Your task to perform on an android device: Show me the alarms in the clock app Image 0: 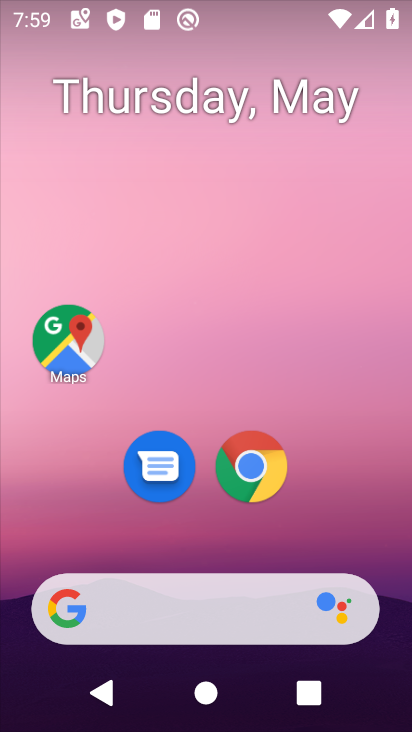
Step 0: drag from (343, 560) to (339, 50)
Your task to perform on an android device: Show me the alarms in the clock app Image 1: 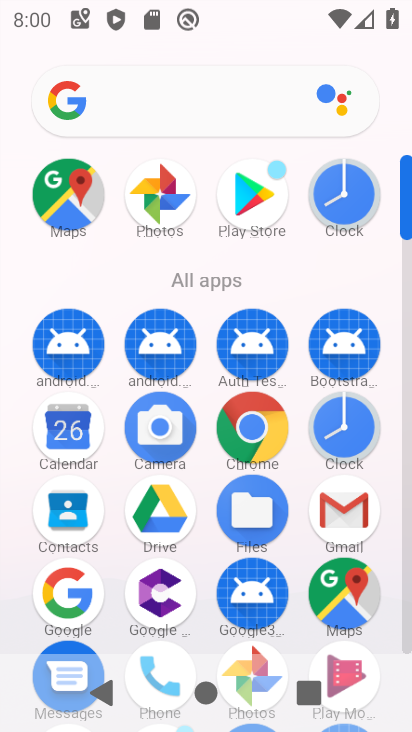
Step 1: click (340, 204)
Your task to perform on an android device: Show me the alarms in the clock app Image 2: 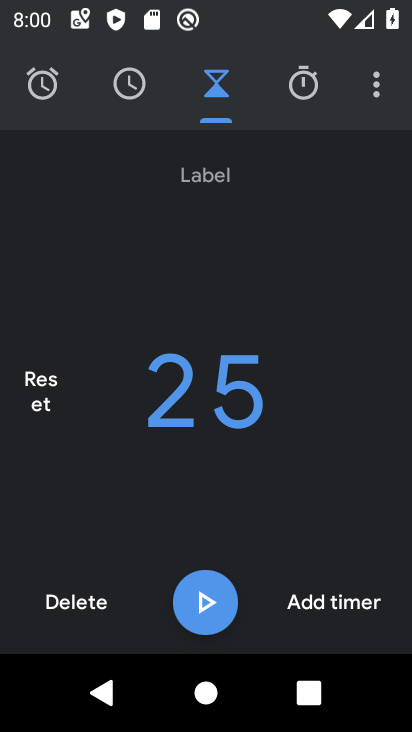
Step 2: click (46, 80)
Your task to perform on an android device: Show me the alarms in the clock app Image 3: 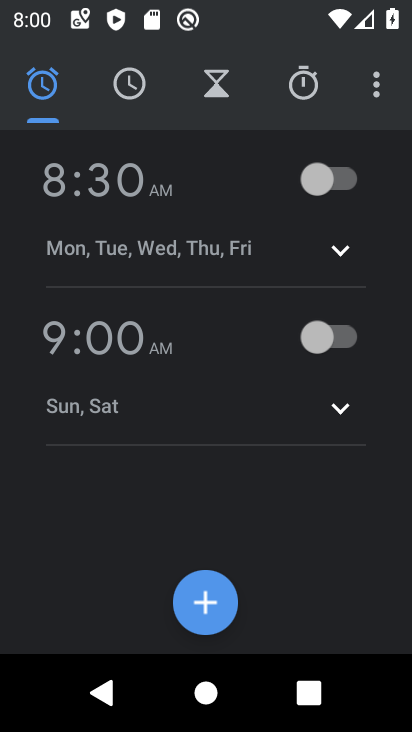
Step 3: task complete